Your task to perform on an android device: change your default location settings in chrome Image 0: 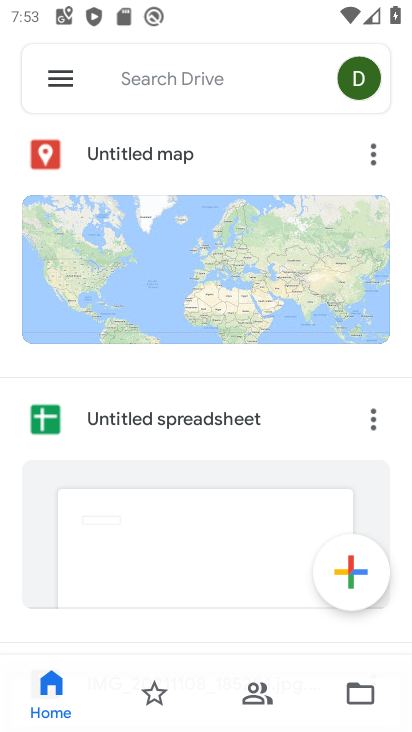
Step 0: press home button
Your task to perform on an android device: change your default location settings in chrome Image 1: 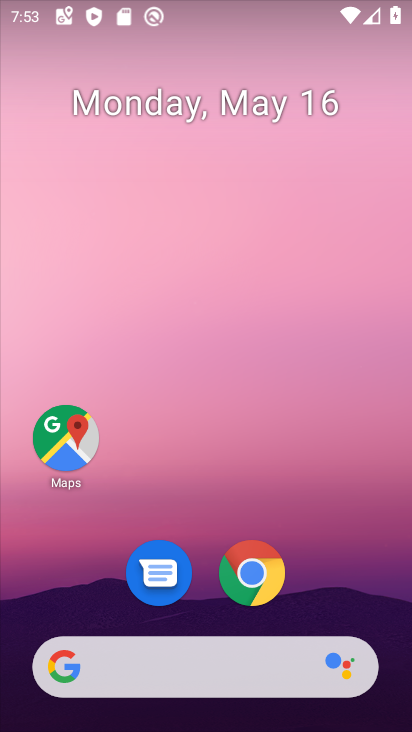
Step 1: drag from (329, 544) to (241, 91)
Your task to perform on an android device: change your default location settings in chrome Image 2: 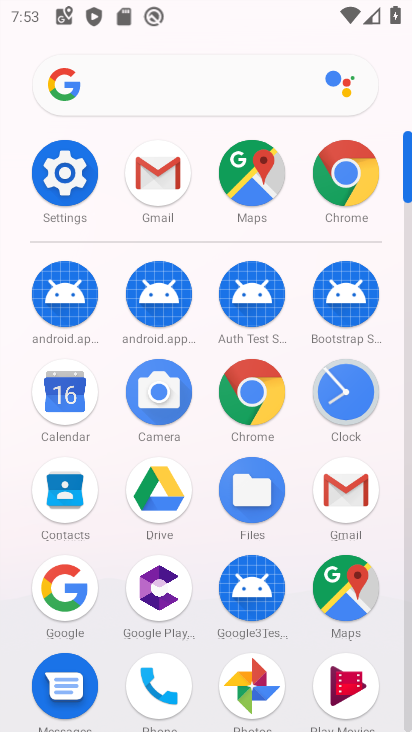
Step 2: click (334, 177)
Your task to perform on an android device: change your default location settings in chrome Image 3: 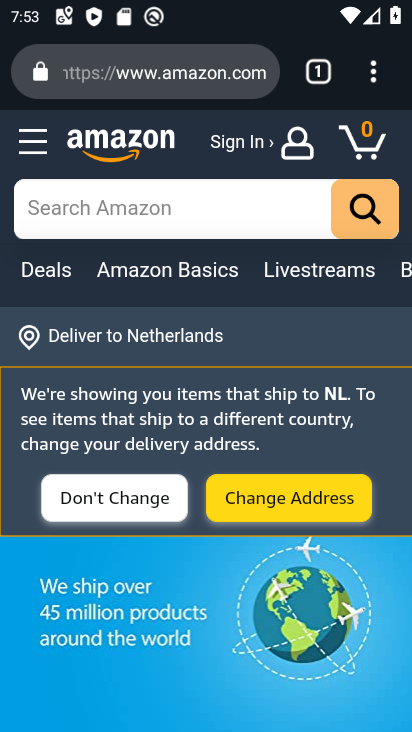
Step 3: drag from (369, 60) to (131, 566)
Your task to perform on an android device: change your default location settings in chrome Image 4: 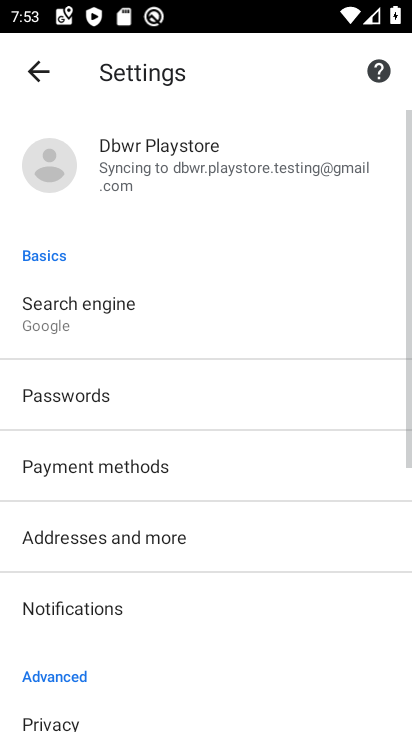
Step 4: drag from (131, 566) to (147, 195)
Your task to perform on an android device: change your default location settings in chrome Image 5: 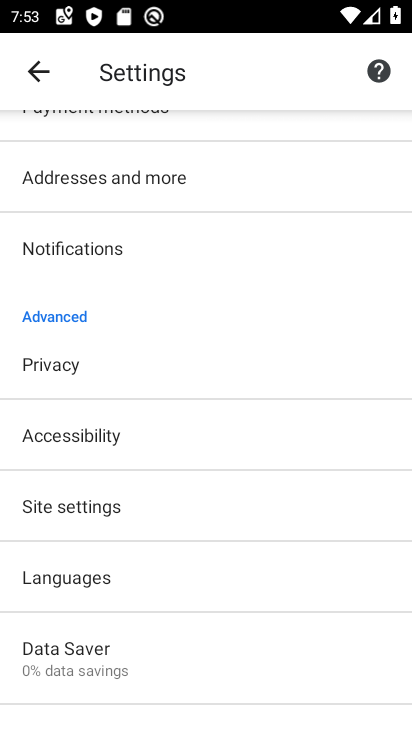
Step 5: drag from (158, 657) to (193, 226)
Your task to perform on an android device: change your default location settings in chrome Image 6: 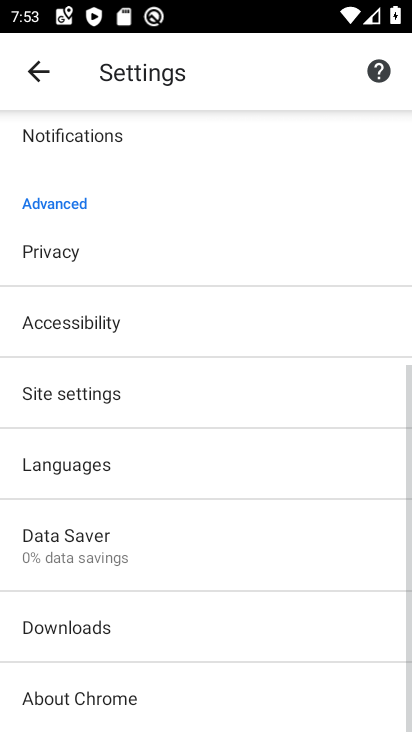
Step 6: click (87, 401)
Your task to perform on an android device: change your default location settings in chrome Image 7: 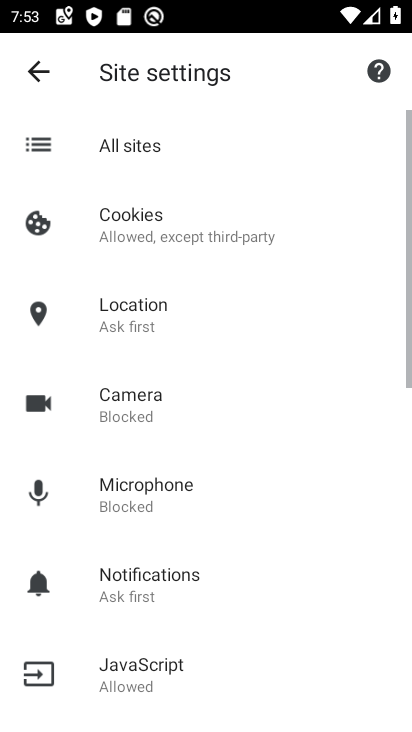
Step 7: drag from (132, 638) to (131, 230)
Your task to perform on an android device: change your default location settings in chrome Image 8: 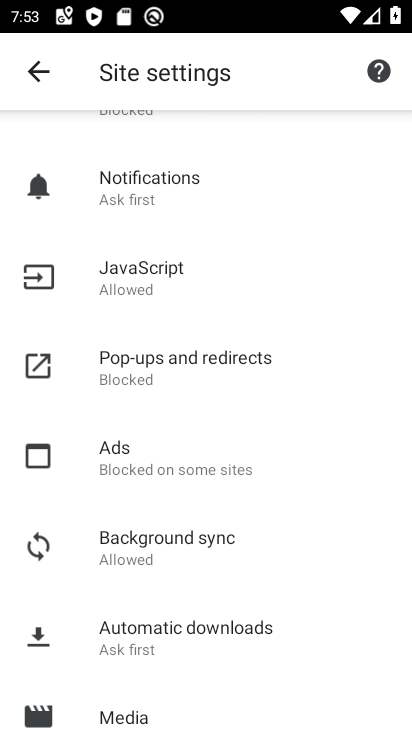
Step 8: drag from (131, 230) to (196, 620)
Your task to perform on an android device: change your default location settings in chrome Image 9: 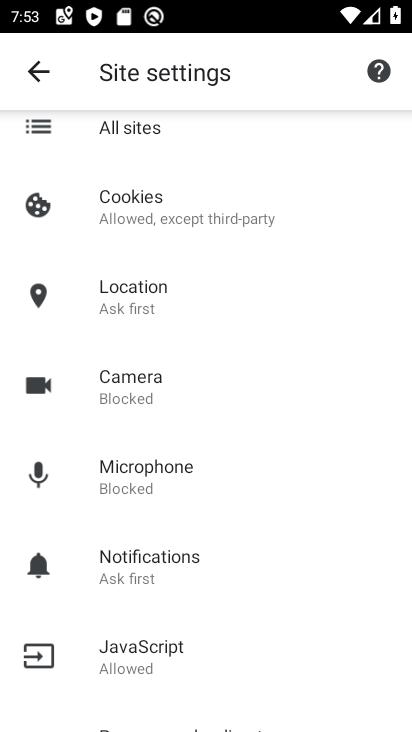
Step 9: click (91, 270)
Your task to perform on an android device: change your default location settings in chrome Image 10: 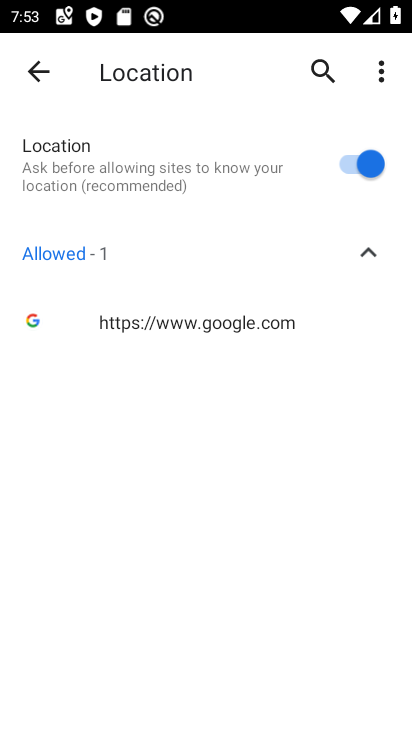
Step 10: click (109, 299)
Your task to perform on an android device: change your default location settings in chrome Image 11: 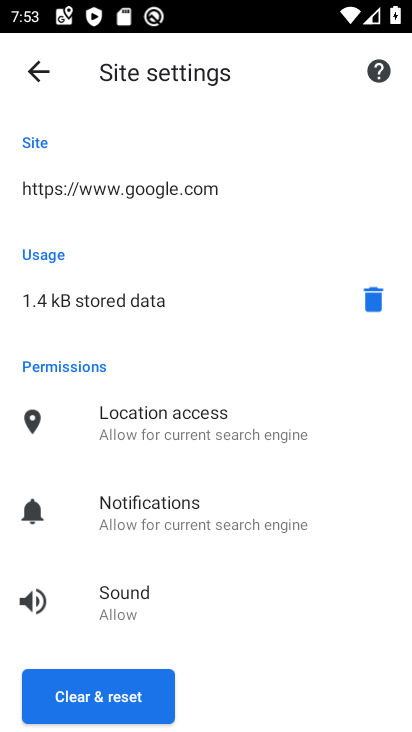
Step 11: click (24, 70)
Your task to perform on an android device: change your default location settings in chrome Image 12: 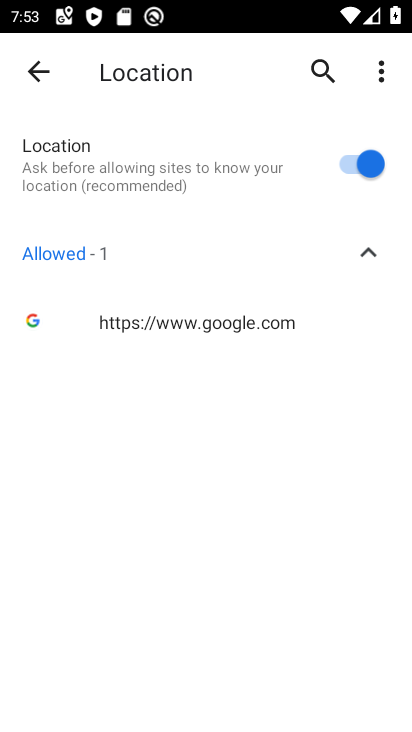
Step 12: click (349, 152)
Your task to perform on an android device: change your default location settings in chrome Image 13: 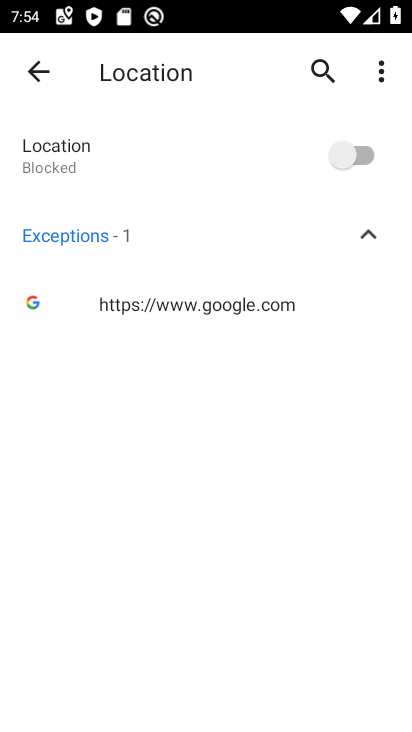
Step 13: task complete